Your task to perform on an android device: Open settings on Google Maps Image 0: 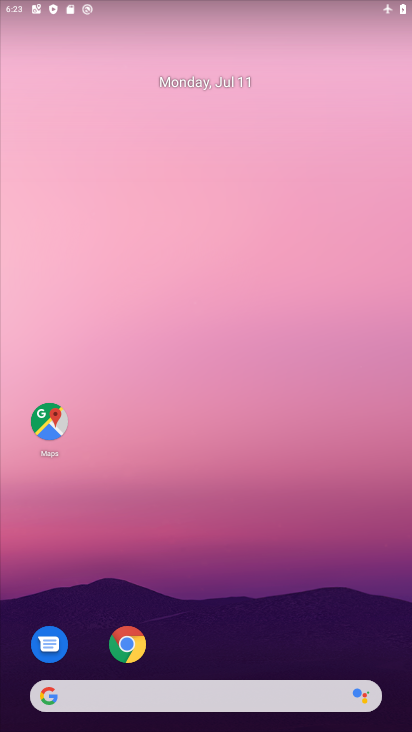
Step 0: drag from (220, 695) to (300, 69)
Your task to perform on an android device: Open settings on Google Maps Image 1: 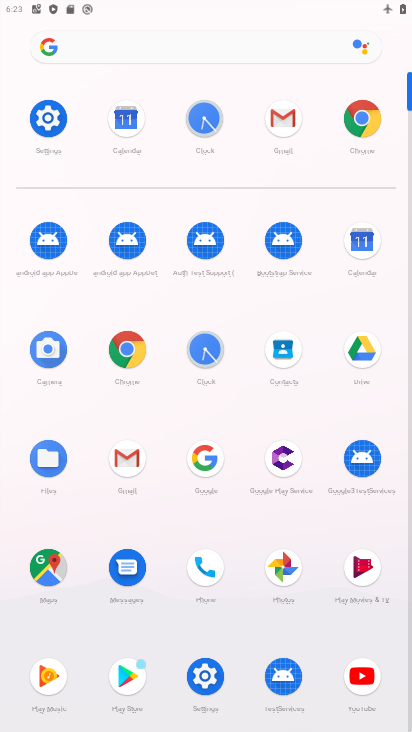
Step 1: click (34, 572)
Your task to perform on an android device: Open settings on Google Maps Image 2: 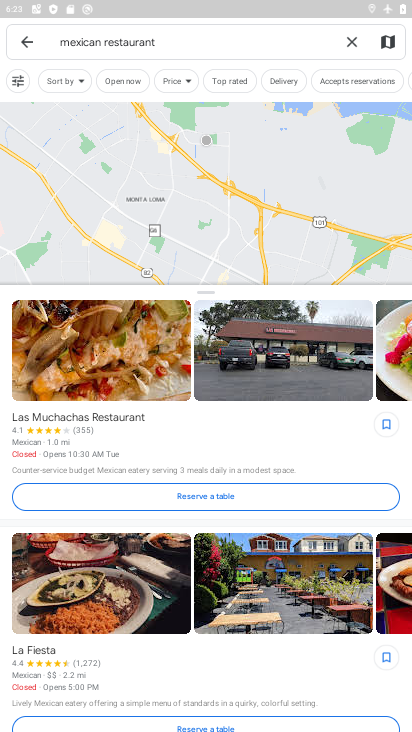
Step 2: press back button
Your task to perform on an android device: Open settings on Google Maps Image 3: 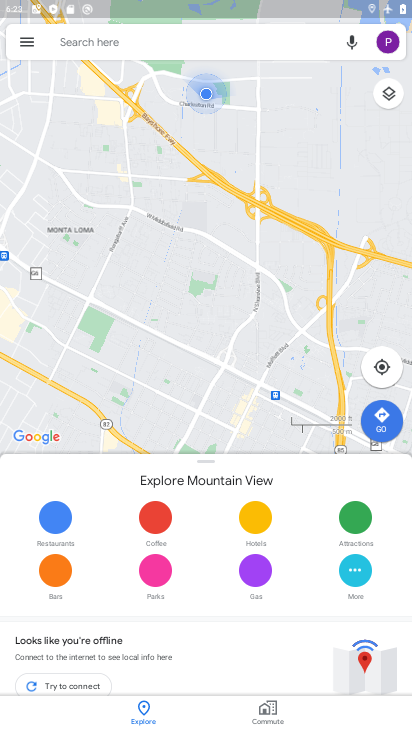
Step 3: click (23, 49)
Your task to perform on an android device: Open settings on Google Maps Image 4: 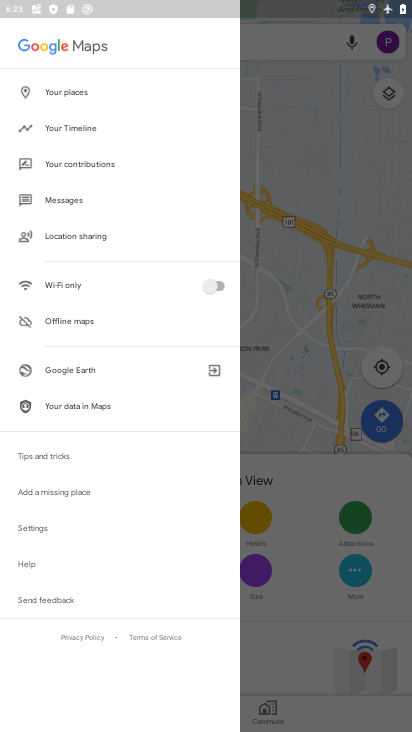
Step 4: click (47, 530)
Your task to perform on an android device: Open settings on Google Maps Image 5: 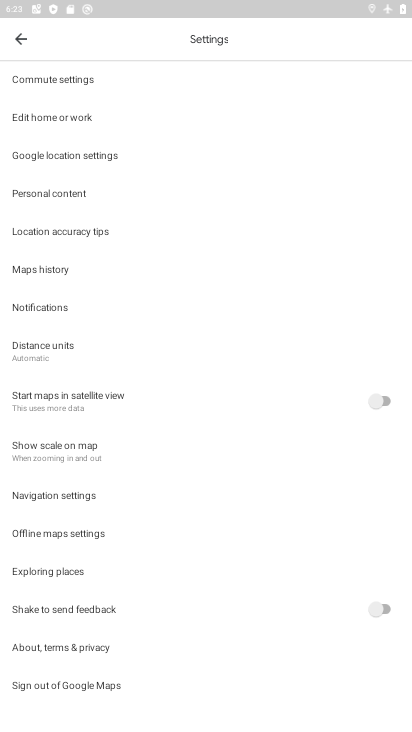
Step 5: task complete